Your task to perform on an android device: set an alarm Image 0: 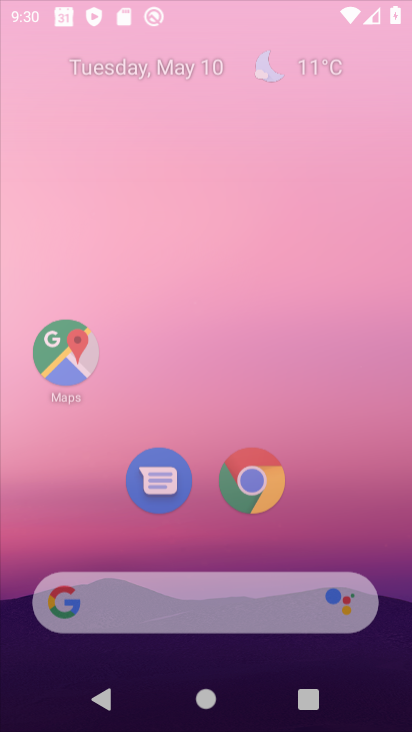
Step 0: click (276, 72)
Your task to perform on an android device: set an alarm Image 1: 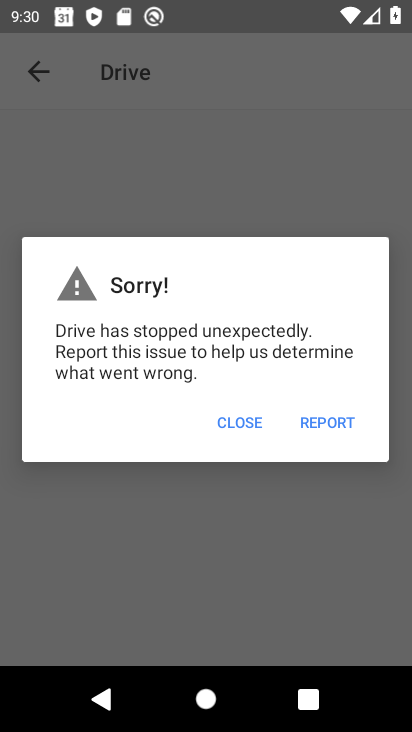
Step 1: press home button
Your task to perform on an android device: set an alarm Image 2: 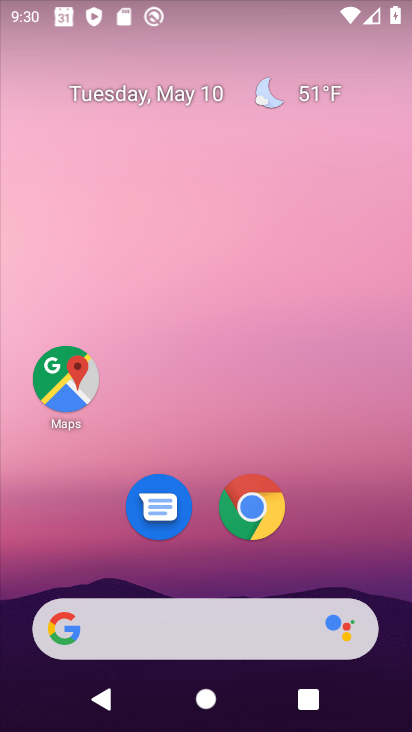
Step 2: drag from (206, 578) to (201, 54)
Your task to perform on an android device: set an alarm Image 3: 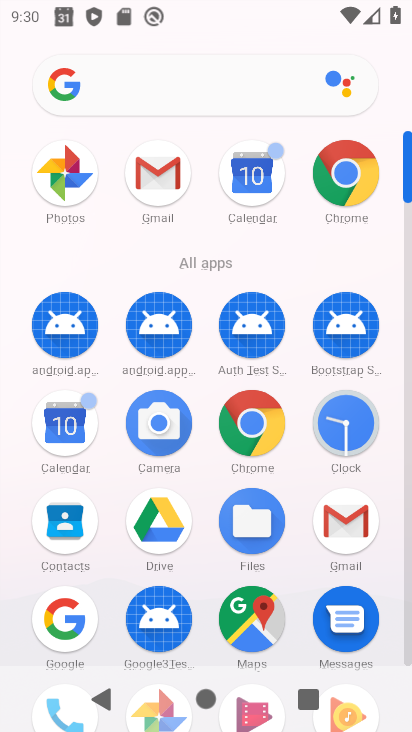
Step 3: click (365, 433)
Your task to perform on an android device: set an alarm Image 4: 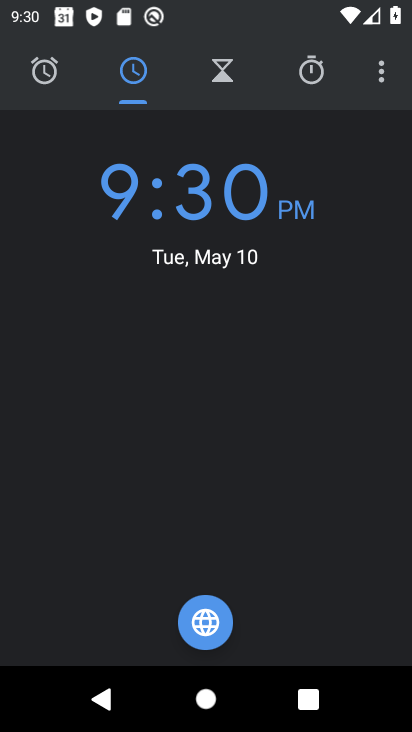
Step 4: click (59, 67)
Your task to perform on an android device: set an alarm Image 5: 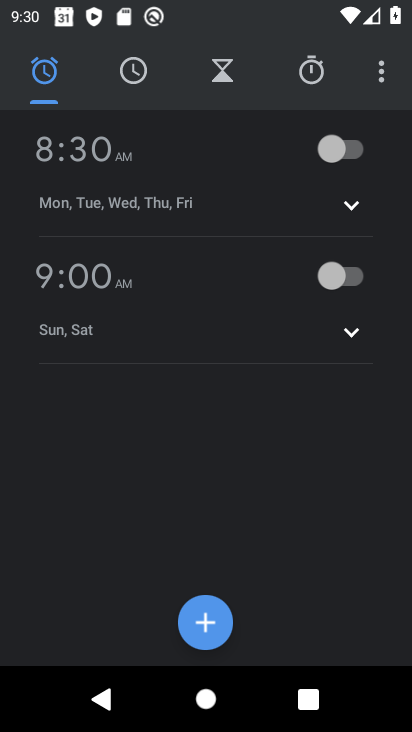
Step 5: click (353, 288)
Your task to perform on an android device: set an alarm Image 6: 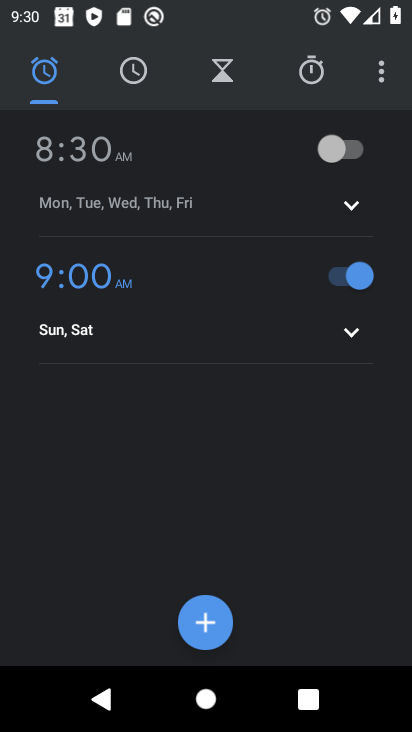
Step 6: task complete